Your task to perform on an android device: Open Wikipedia Image 0: 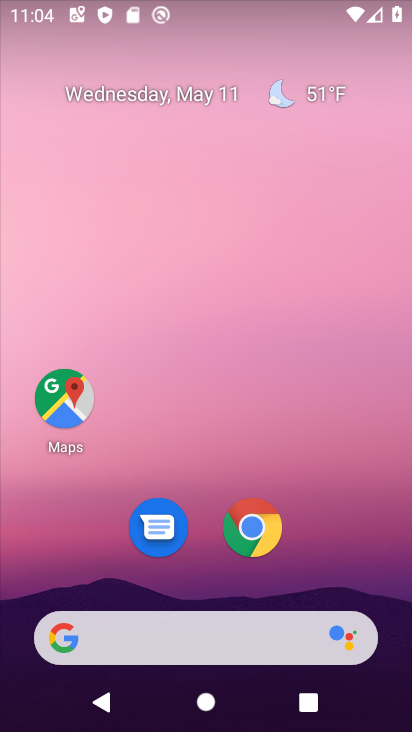
Step 0: drag from (329, 504) to (285, 45)
Your task to perform on an android device: Open Wikipedia Image 1: 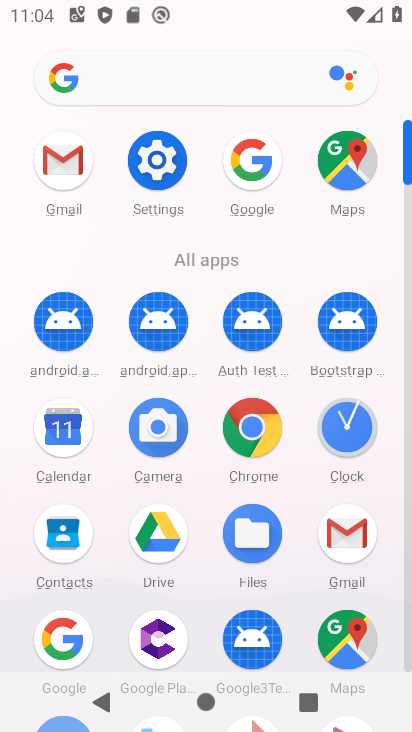
Step 1: click (248, 154)
Your task to perform on an android device: Open Wikipedia Image 2: 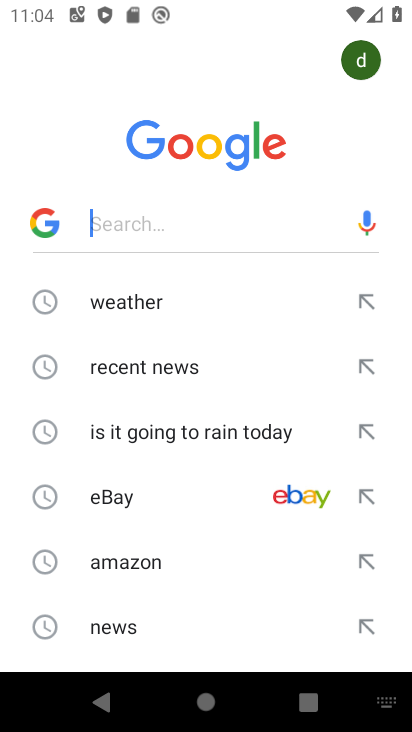
Step 2: type "Wikipedia"
Your task to perform on an android device: Open Wikipedia Image 3: 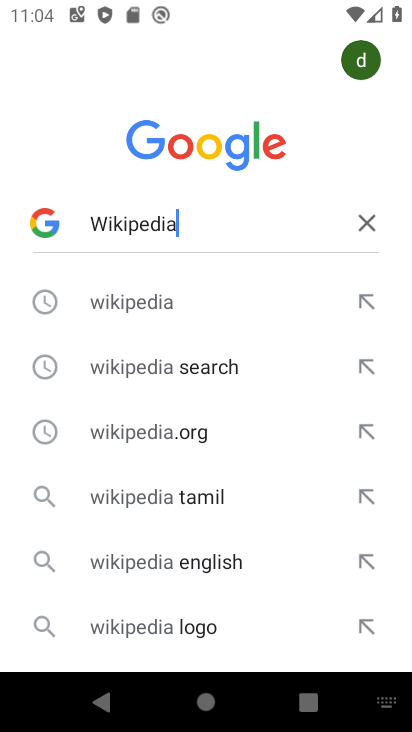
Step 3: click (152, 297)
Your task to perform on an android device: Open Wikipedia Image 4: 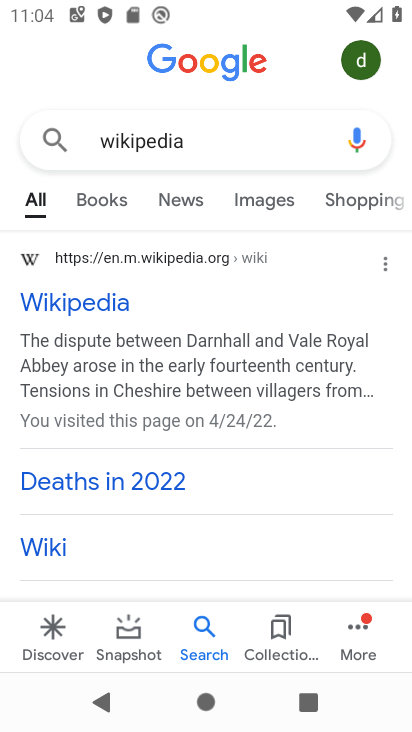
Step 4: click (95, 309)
Your task to perform on an android device: Open Wikipedia Image 5: 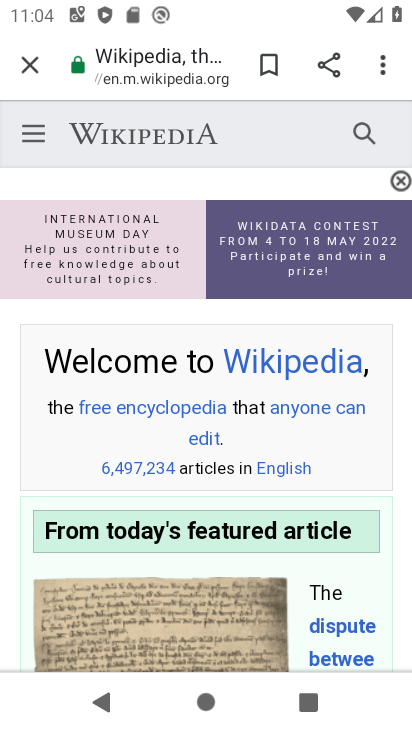
Step 5: task complete